Your task to perform on an android device: Open privacy settings Image 0: 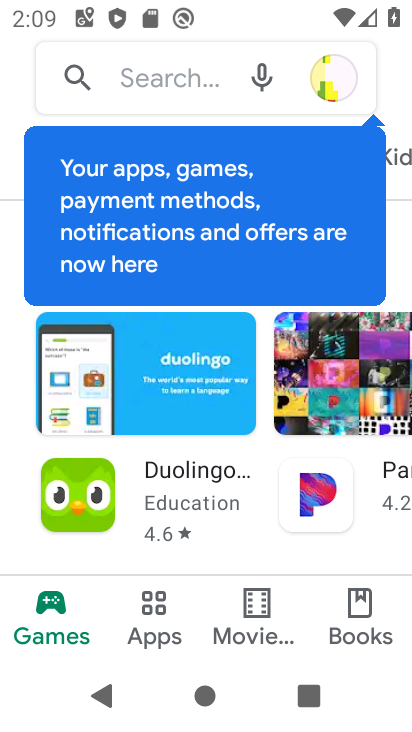
Step 0: press home button
Your task to perform on an android device: Open privacy settings Image 1: 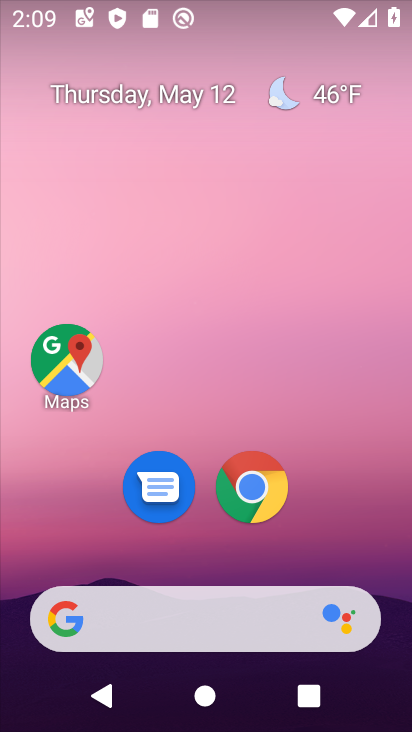
Step 1: drag from (304, 543) to (311, 9)
Your task to perform on an android device: Open privacy settings Image 2: 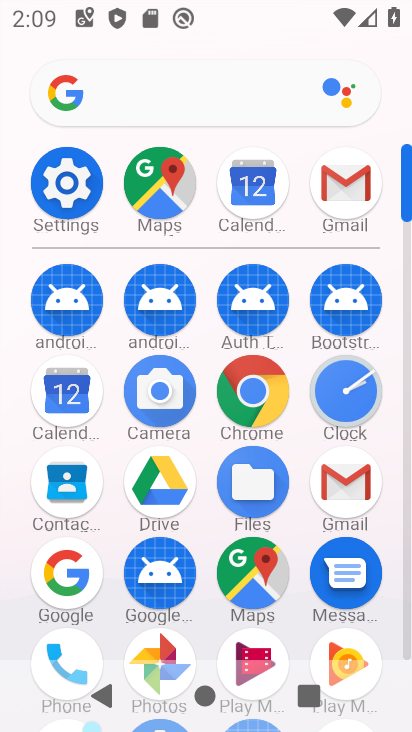
Step 2: click (73, 182)
Your task to perform on an android device: Open privacy settings Image 3: 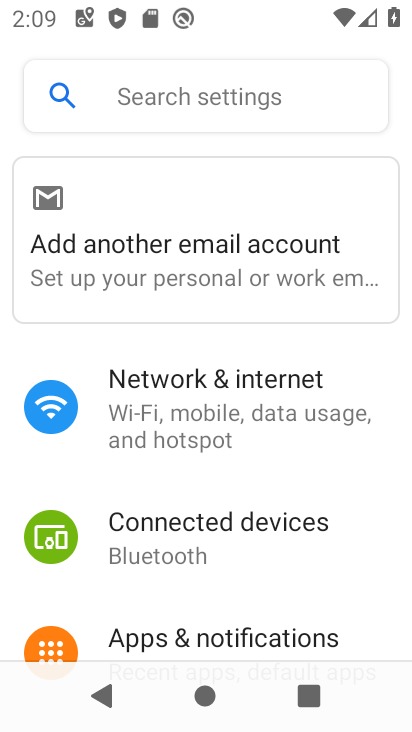
Step 3: drag from (219, 513) to (240, 152)
Your task to perform on an android device: Open privacy settings Image 4: 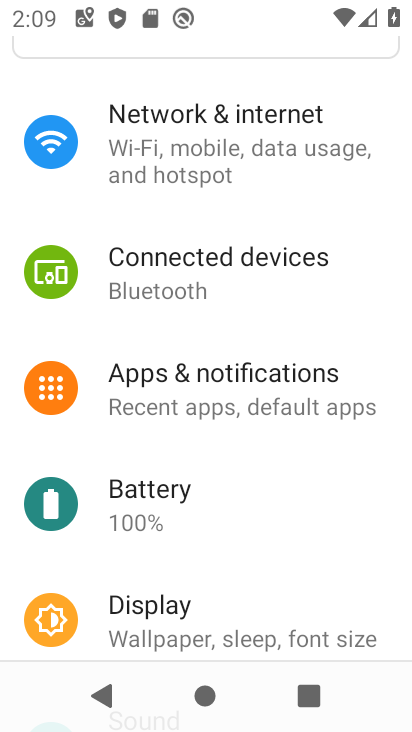
Step 4: drag from (249, 496) to (300, 64)
Your task to perform on an android device: Open privacy settings Image 5: 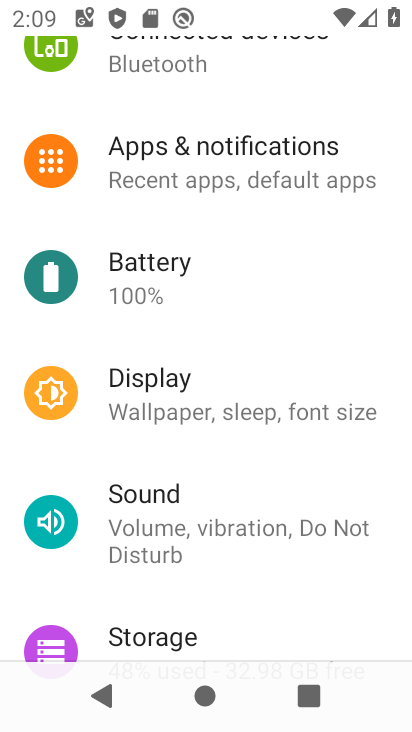
Step 5: drag from (286, 517) to (295, 116)
Your task to perform on an android device: Open privacy settings Image 6: 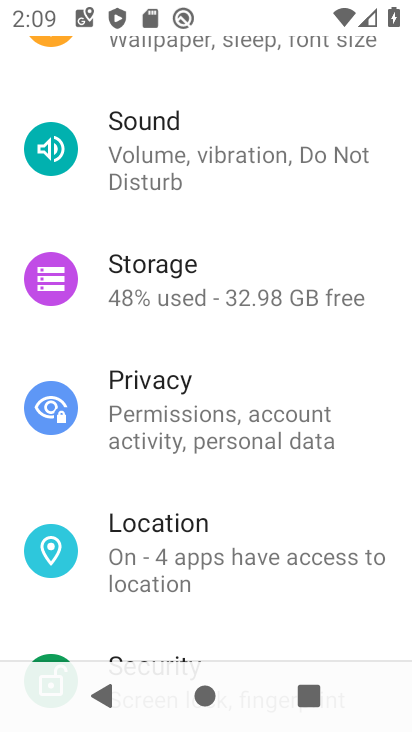
Step 6: click (203, 426)
Your task to perform on an android device: Open privacy settings Image 7: 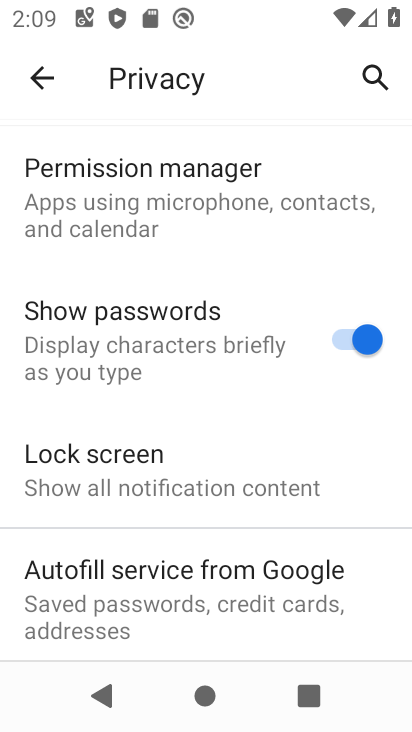
Step 7: task complete